Your task to perform on an android device: Open calendar and show me the second week of next month Image 0: 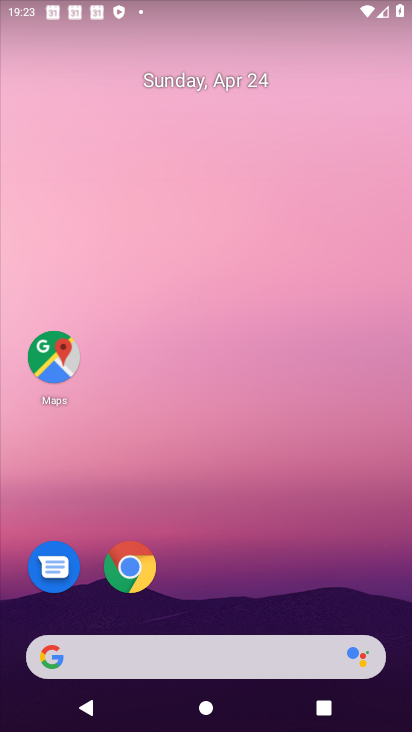
Step 0: drag from (239, 688) to (276, 253)
Your task to perform on an android device: Open calendar and show me the second week of next month Image 1: 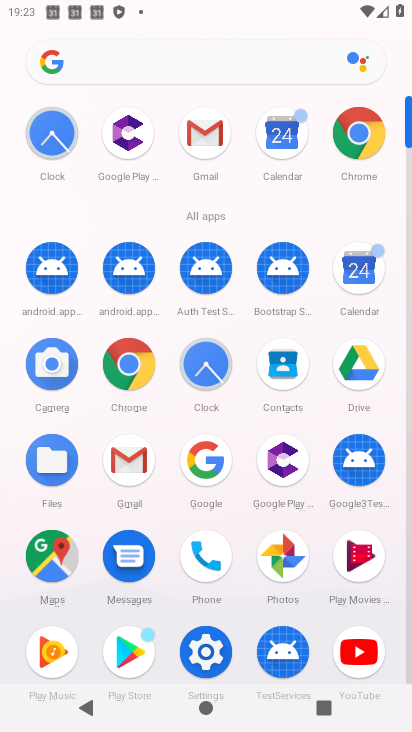
Step 1: click (183, 319)
Your task to perform on an android device: Open calendar and show me the second week of next month Image 2: 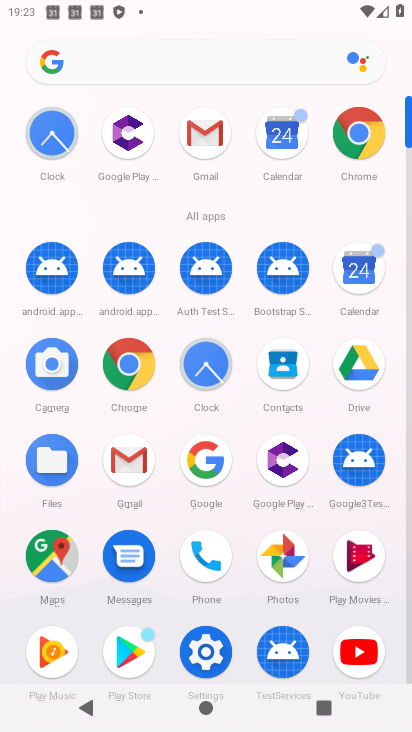
Step 2: click (366, 281)
Your task to perform on an android device: Open calendar and show me the second week of next month Image 3: 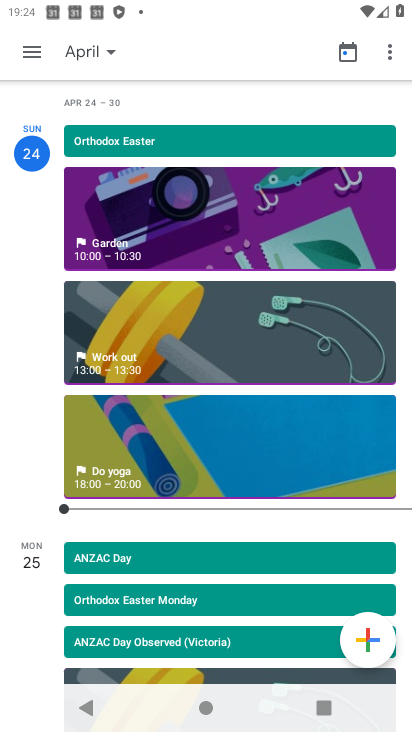
Step 3: click (28, 65)
Your task to perform on an android device: Open calendar and show me the second week of next month Image 4: 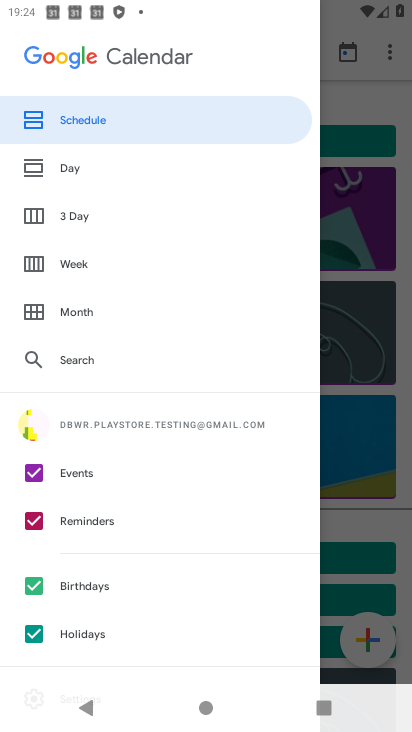
Step 4: click (80, 310)
Your task to perform on an android device: Open calendar and show me the second week of next month Image 5: 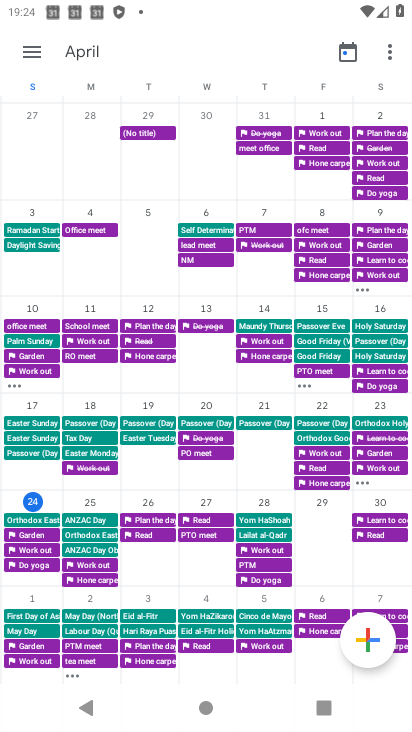
Step 5: drag from (379, 462) to (0, 486)
Your task to perform on an android device: Open calendar and show me the second week of next month Image 6: 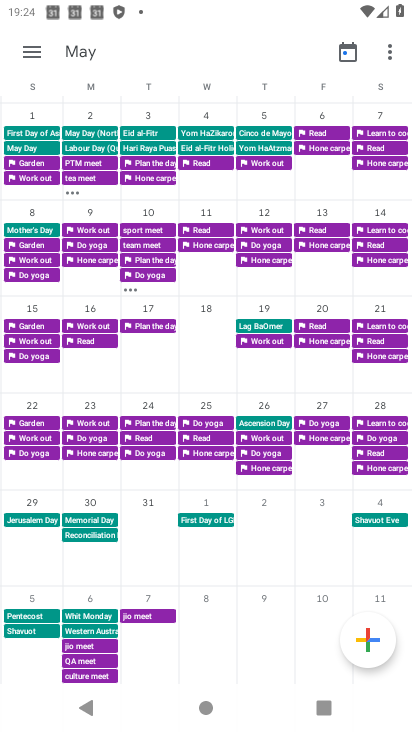
Step 6: click (91, 211)
Your task to perform on an android device: Open calendar and show me the second week of next month Image 7: 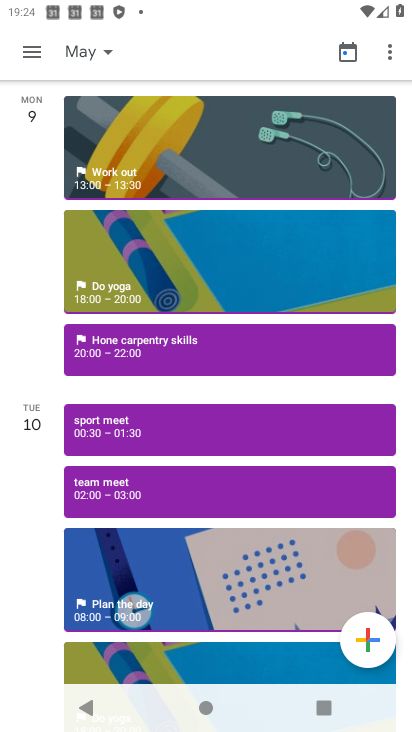
Step 7: task complete